Your task to perform on an android device: open sync settings in chrome Image 0: 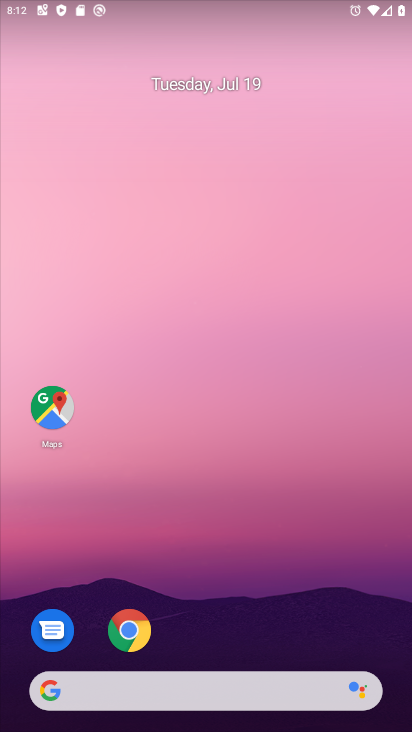
Step 0: click (129, 632)
Your task to perform on an android device: open sync settings in chrome Image 1: 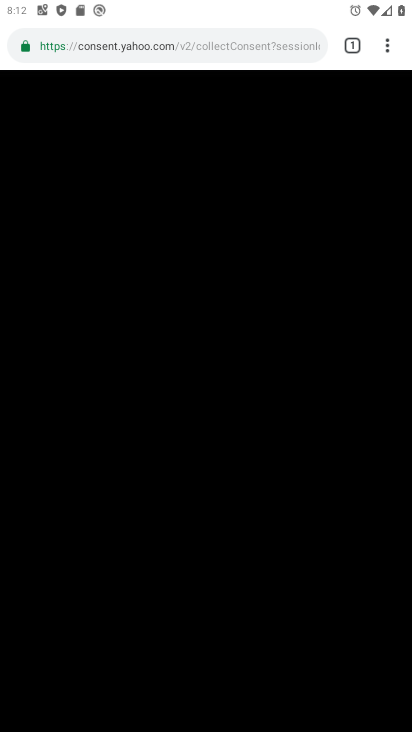
Step 1: click (385, 47)
Your task to perform on an android device: open sync settings in chrome Image 2: 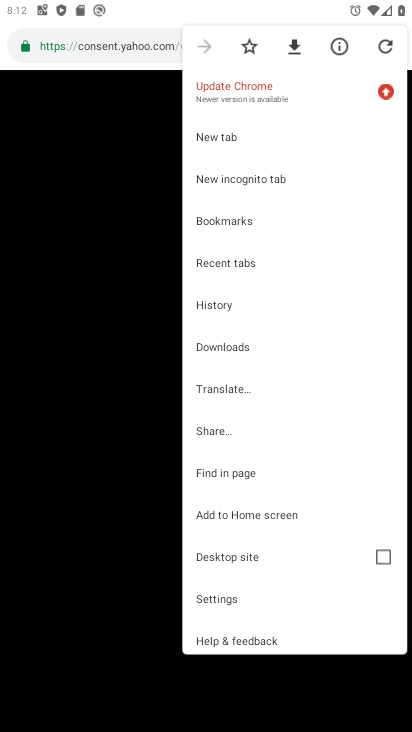
Step 2: click (212, 599)
Your task to perform on an android device: open sync settings in chrome Image 3: 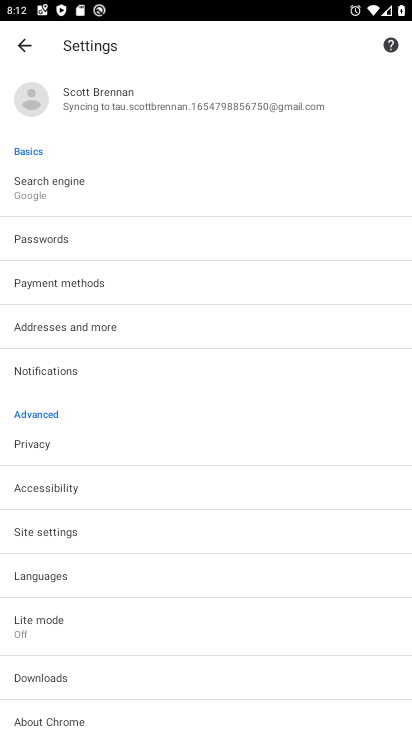
Step 3: click (119, 105)
Your task to perform on an android device: open sync settings in chrome Image 4: 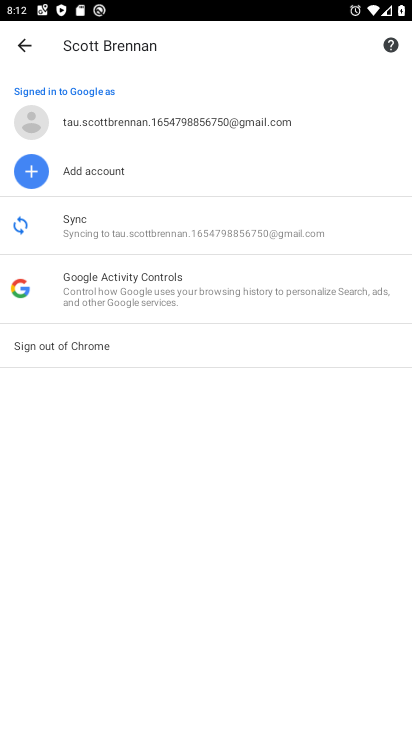
Step 4: click (99, 219)
Your task to perform on an android device: open sync settings in chrome Image 5: 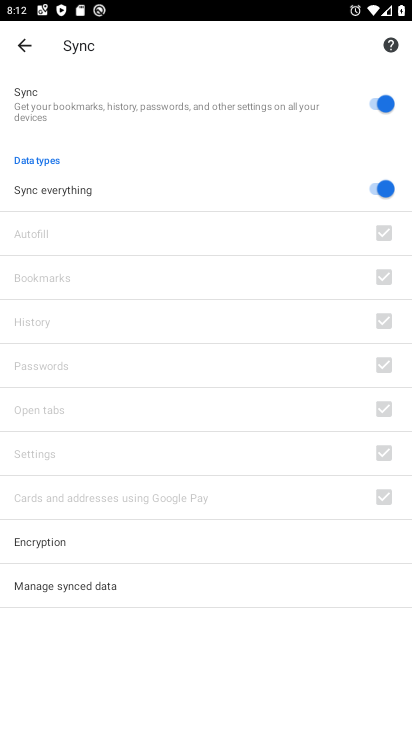
Step 5: task complete